Your task to perform on an android device: Open accessibility settings Image 0: 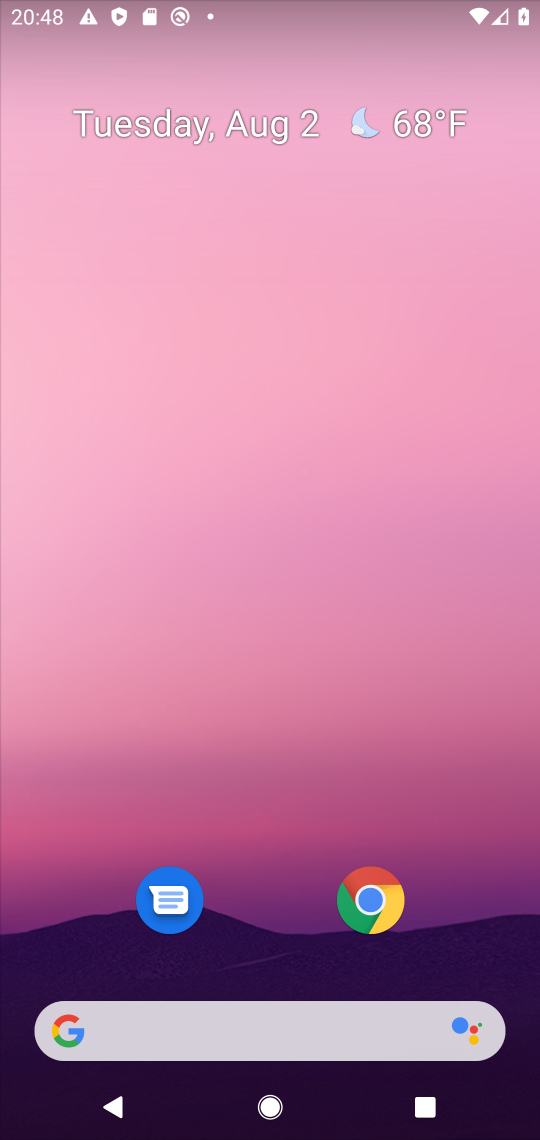
Step 0: drag from (283, 885) to (295, 0)
Your task to perform on an android device: Open accessibility settings Image 1: 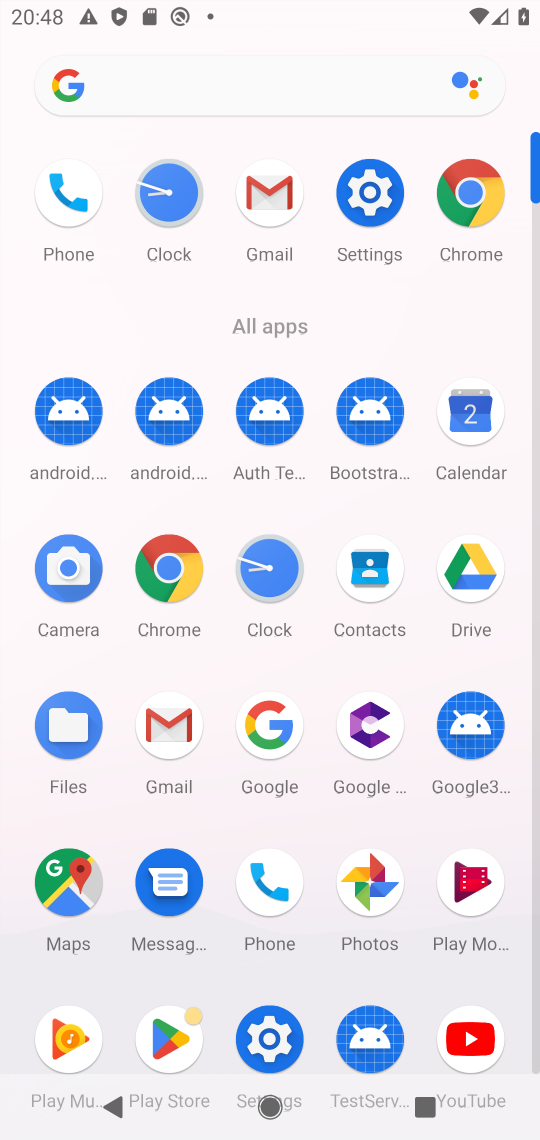
Step 1: click (366, 184)
Your task to perform on an android device: Open accessibility settings Image 2: 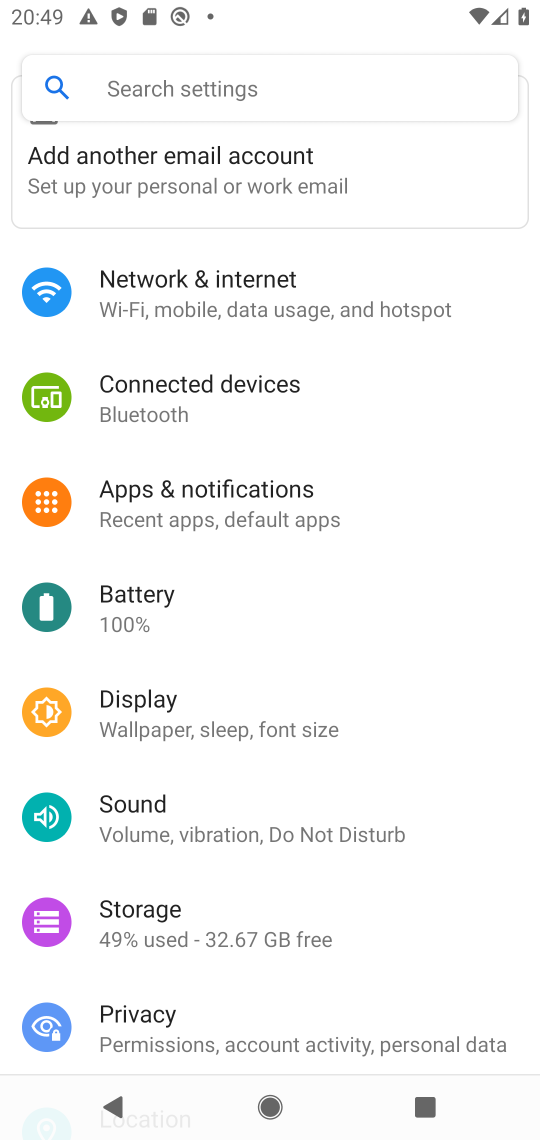
Step 2: drag from (275, 893) to (343, 212)
Your task to perform on an android device: Open accessibility settings Image 3: 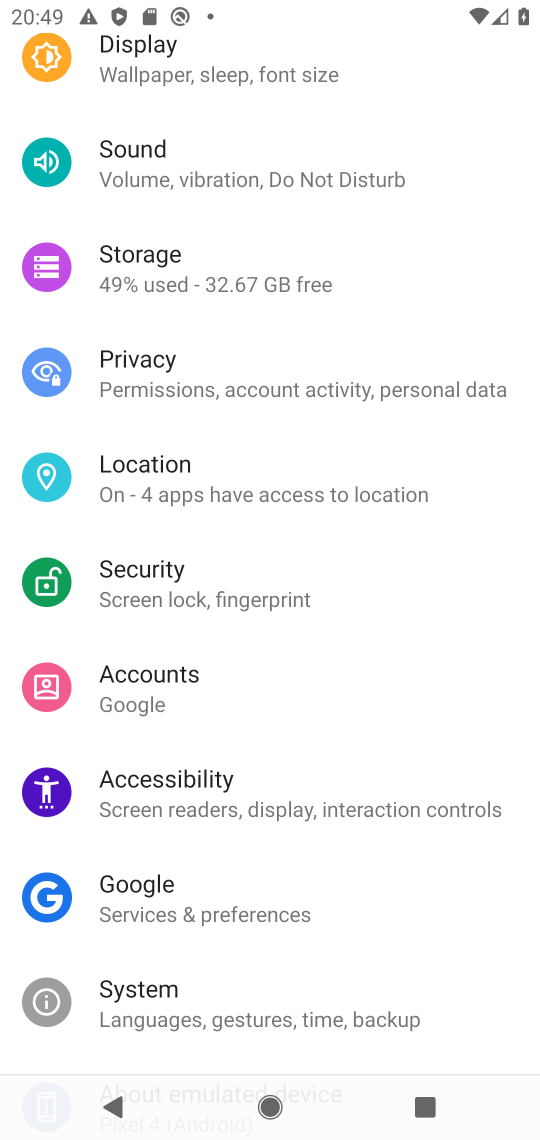
Step 3: click (270, 791)
Your task to perform on an android device: Open accessibility settings Image 4: 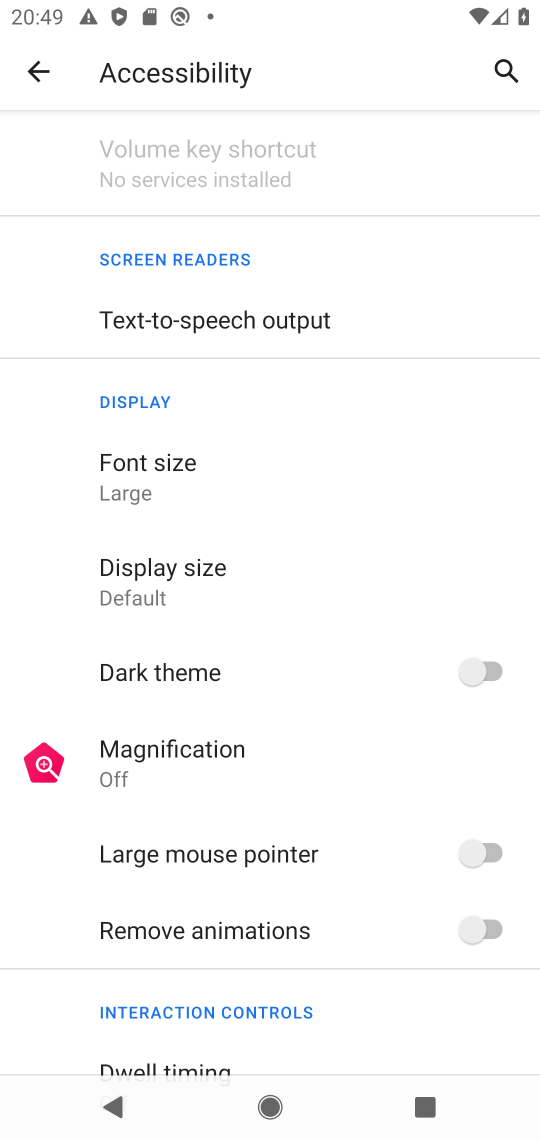
Step 4: task complete